Your task to perform on an android device: Open Google Chrome Image 0: 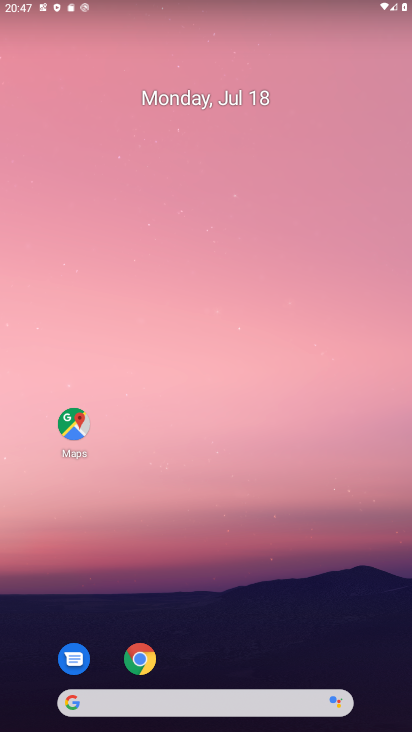
Step 0: drag from (242, 267) to (235, 132)
Your task to perform on an android device: Open Google Chrome Image 1: 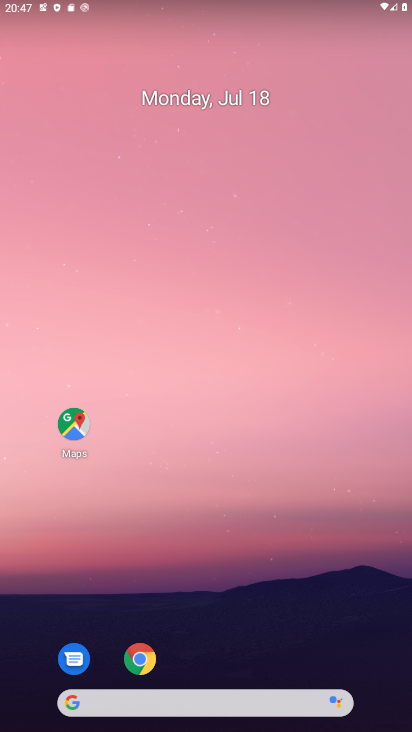
Step 1: drag from (270, 701) to (217, 107)
Your task to perform on an android device: Open Google Chrome Image 2: 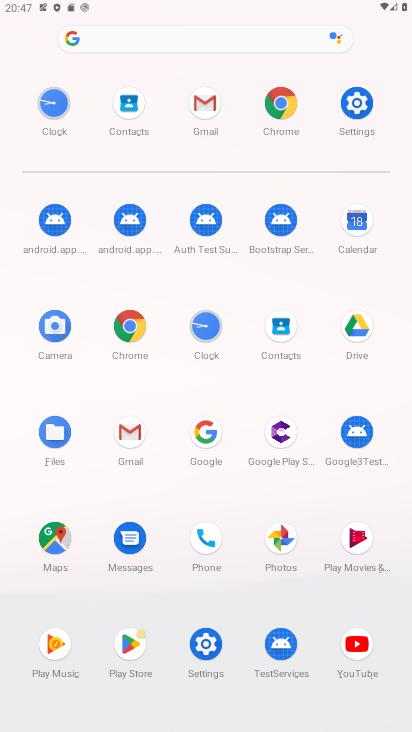
Step 2: click (281, 95)
Your task to perform on an android device: Open Google Chrome Image 3: 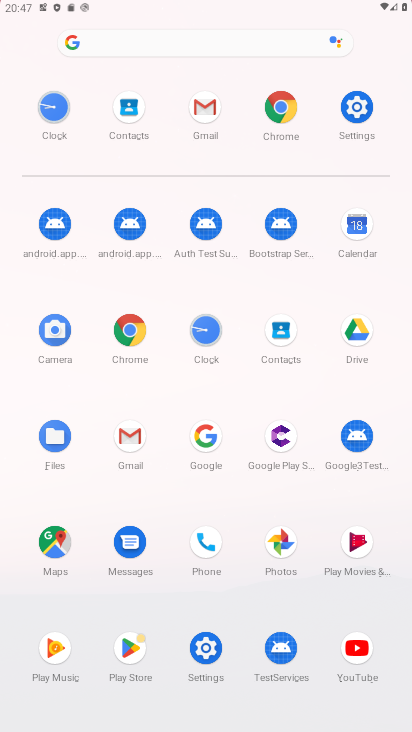
Step 3: click (277, 105)
Your task to perform on an android device: Open Google Chrome Image 4: 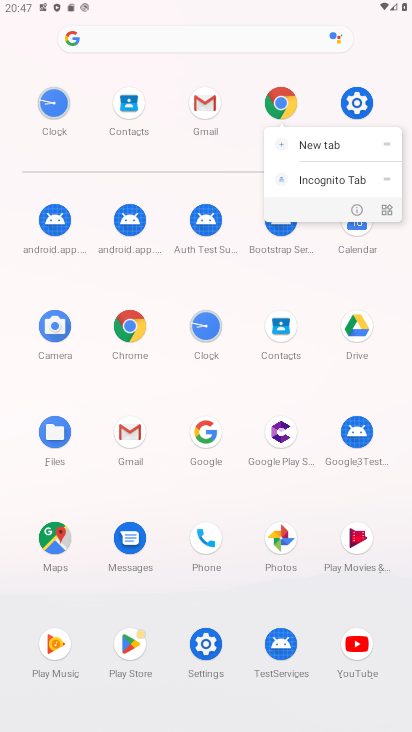
Step 4: click (274, 102)
Your task to perform on an android device: Open Google Chrome Image 5: 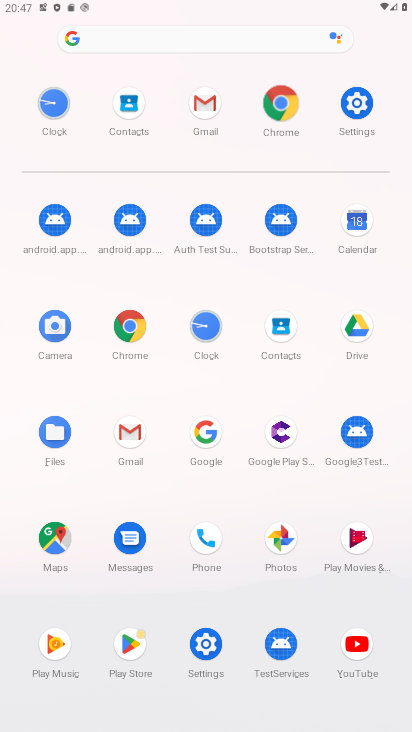
Step 5: click (276, 102)
Your task to perform on an android device: Open Google Chrome Image 6: 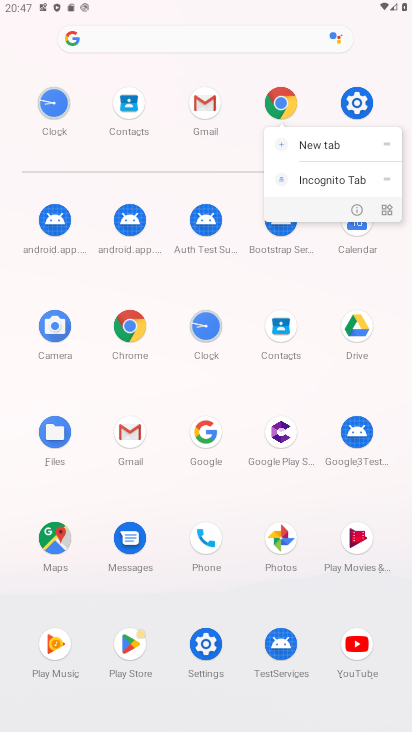
Step 6: click (290, 104)
Your task to perform on an android device: Open Google Chrome Image 7: 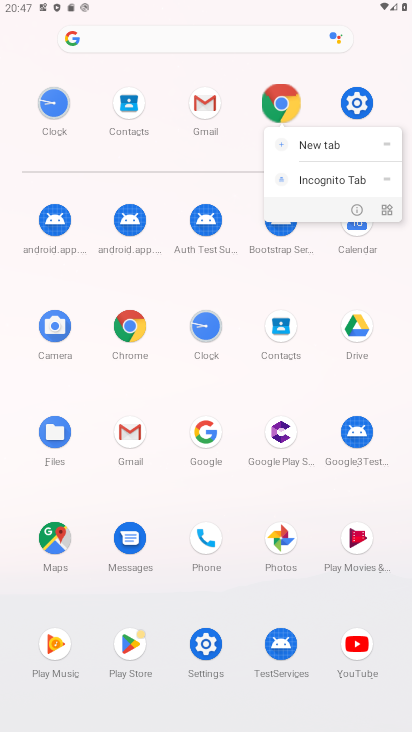
Step 7: click (290, 102)
Your task to perform on an android device: Open Google Chrome Image 8: 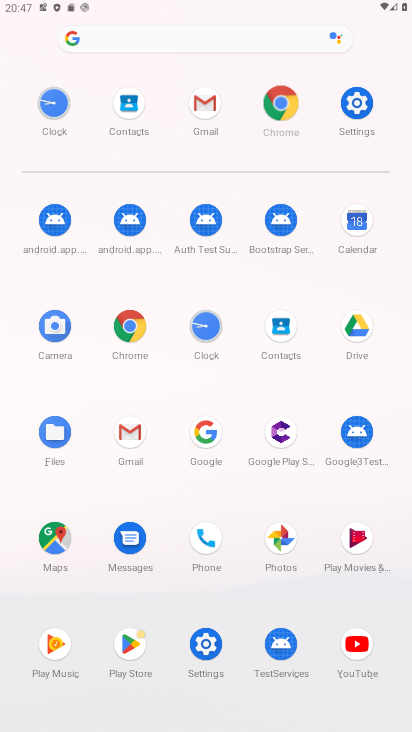
Step 8: click (288, 100)
Your task to perform on an android device: Open Google Chrome Image 9: 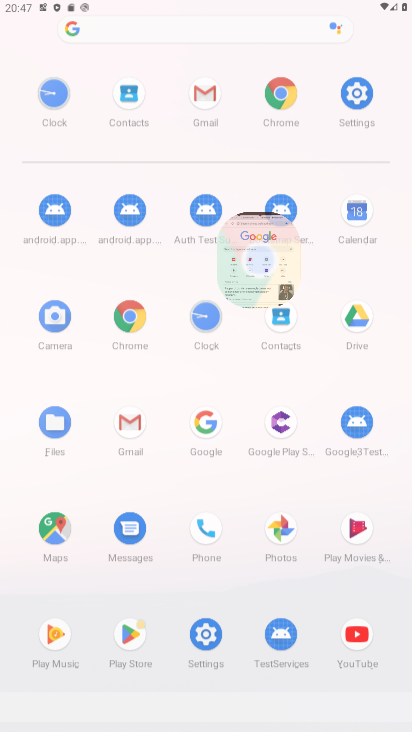
Step 9: click (288, 100)
Your task to perform on an android device: Open Google Chrome Image 10: 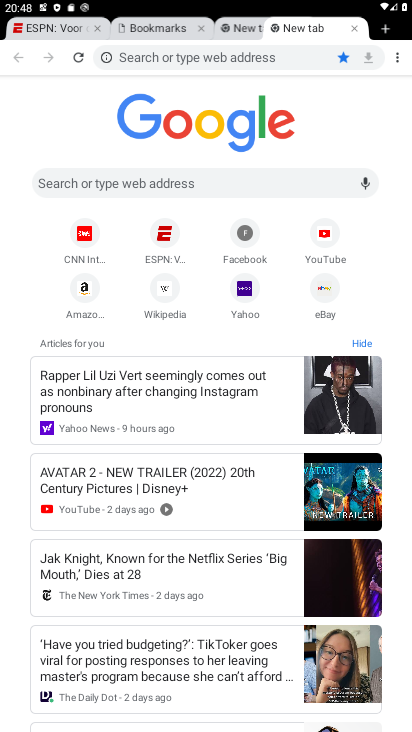
Step 10: task complete